Your task to perform on an android device: Add razer blade to the cart on target Image 0: 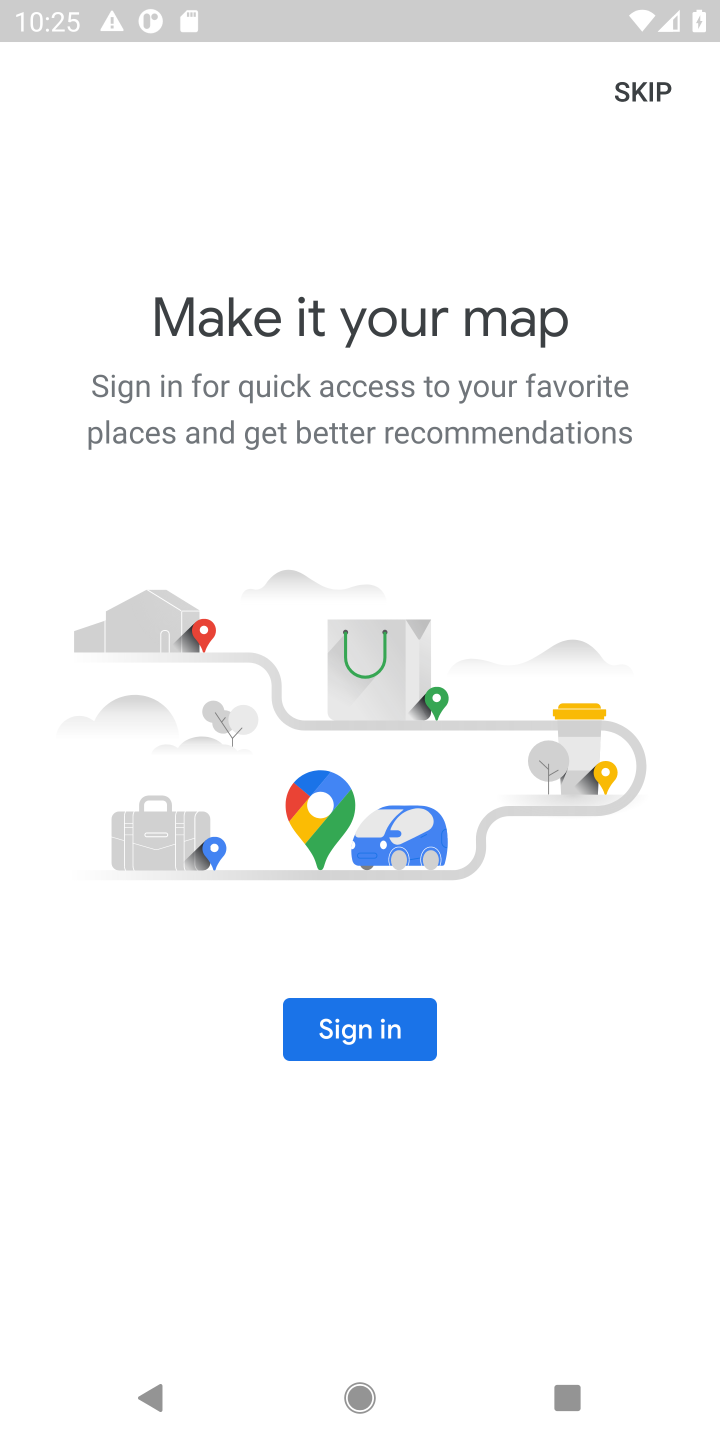
Step 0: press home button
Your task to perform on an android device: Add razer blade to the cart on target Image 1: 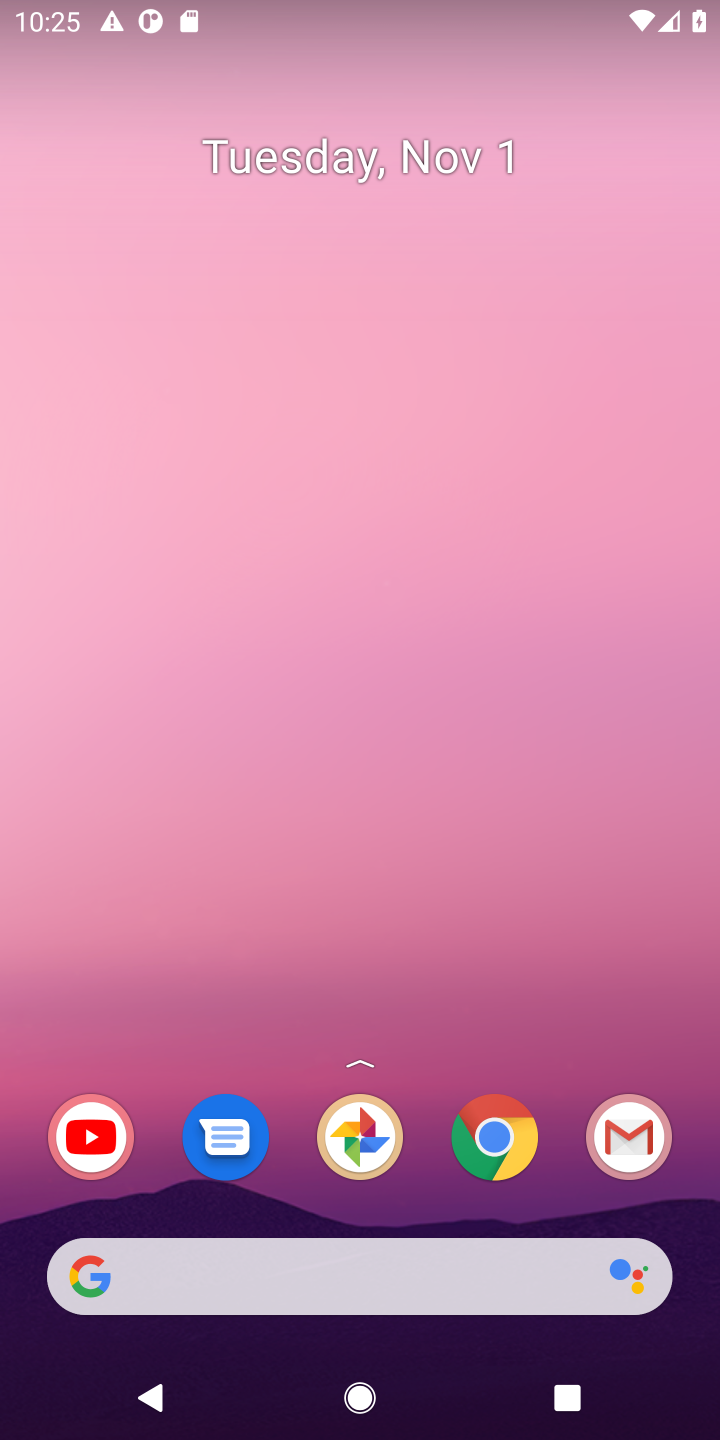
Step 1: drag from (356, 1037) to (281, 681)
Your task to perform on an android device: Add razer blade to the cart on target Image 2: 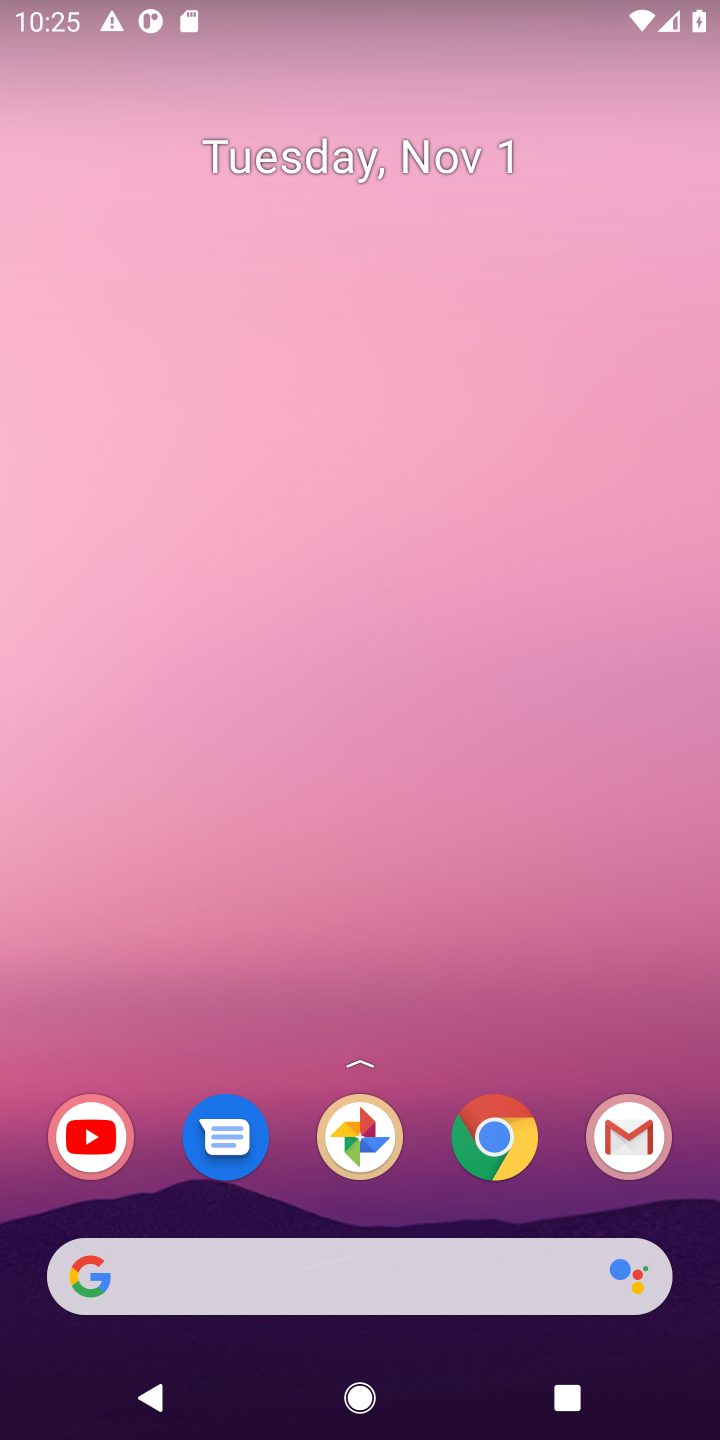
Step 2: click (328, 1283)
Your task to perform on an android device: Add razer blade to the cart on target Image 3: 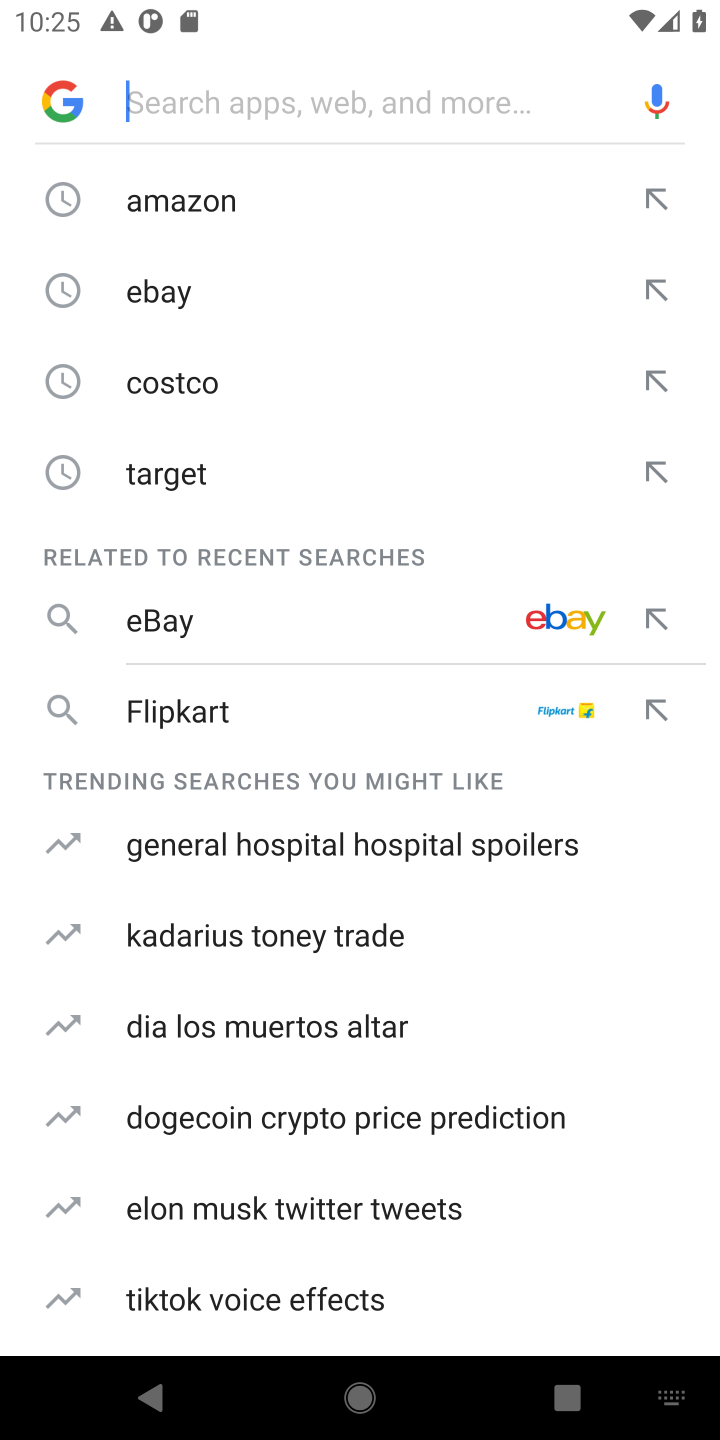
Step 3: click (328, 1283)
Your task to perform on an android device: Add razer blade to the cart on target Image 4: 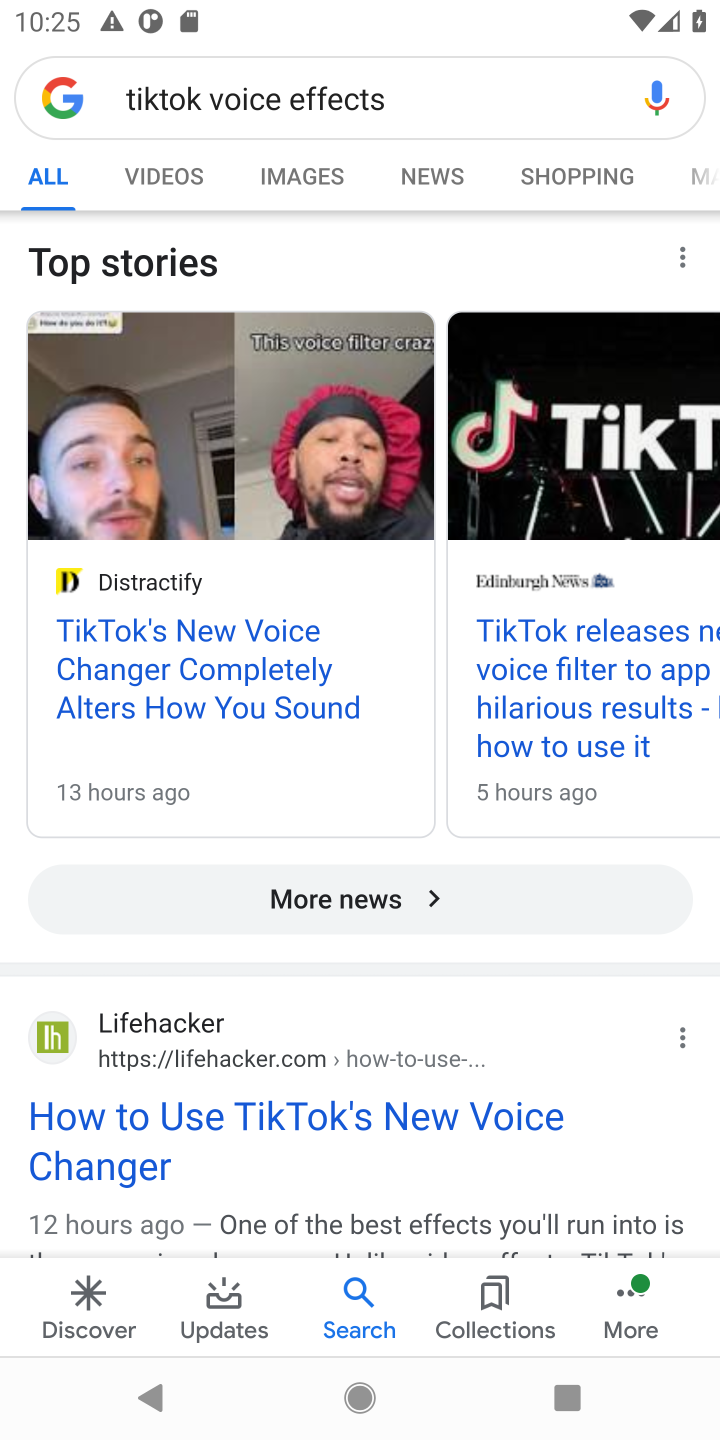
Step 4: press back button
Your task to perform on an android device: Add razer blade to the cart on target Image 5: 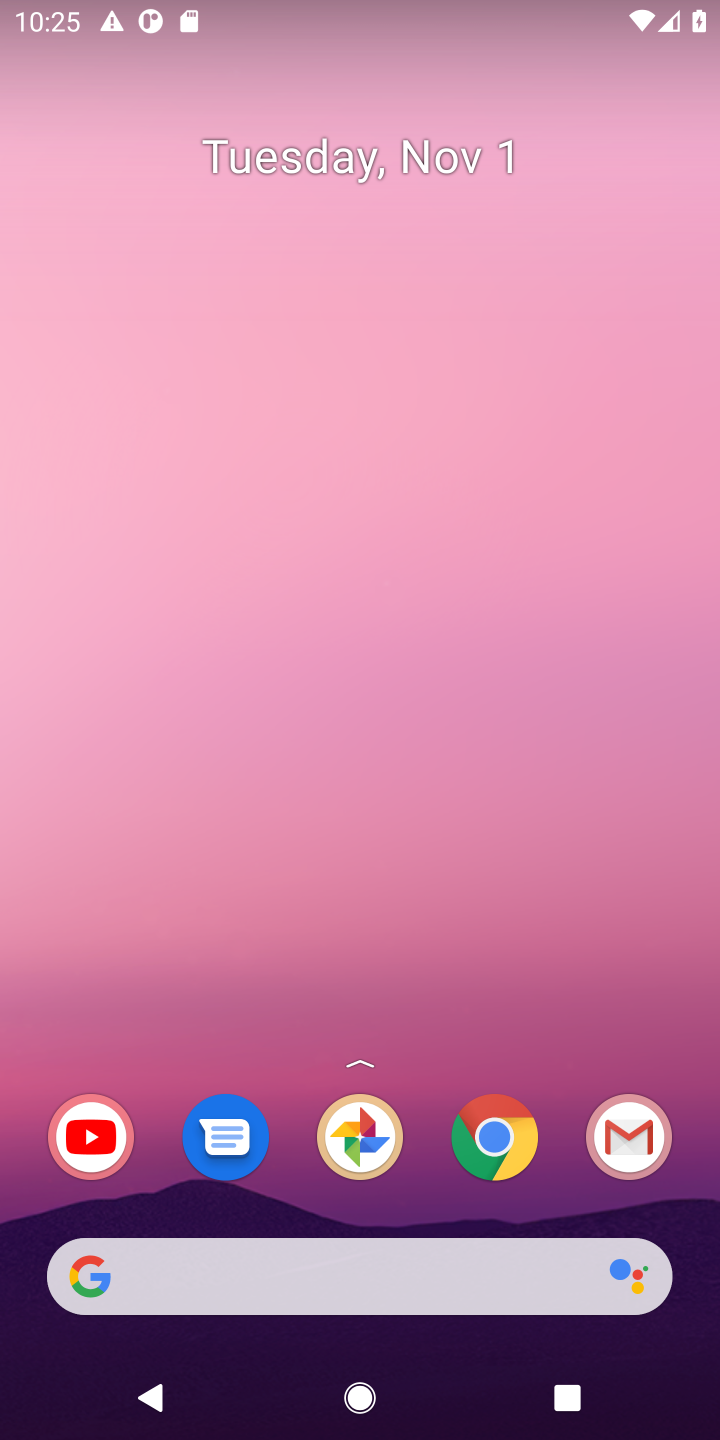
Step 5: click (381, 1266)
Your task to perform on an android device: Add razer blade to the cart on target Image 6: 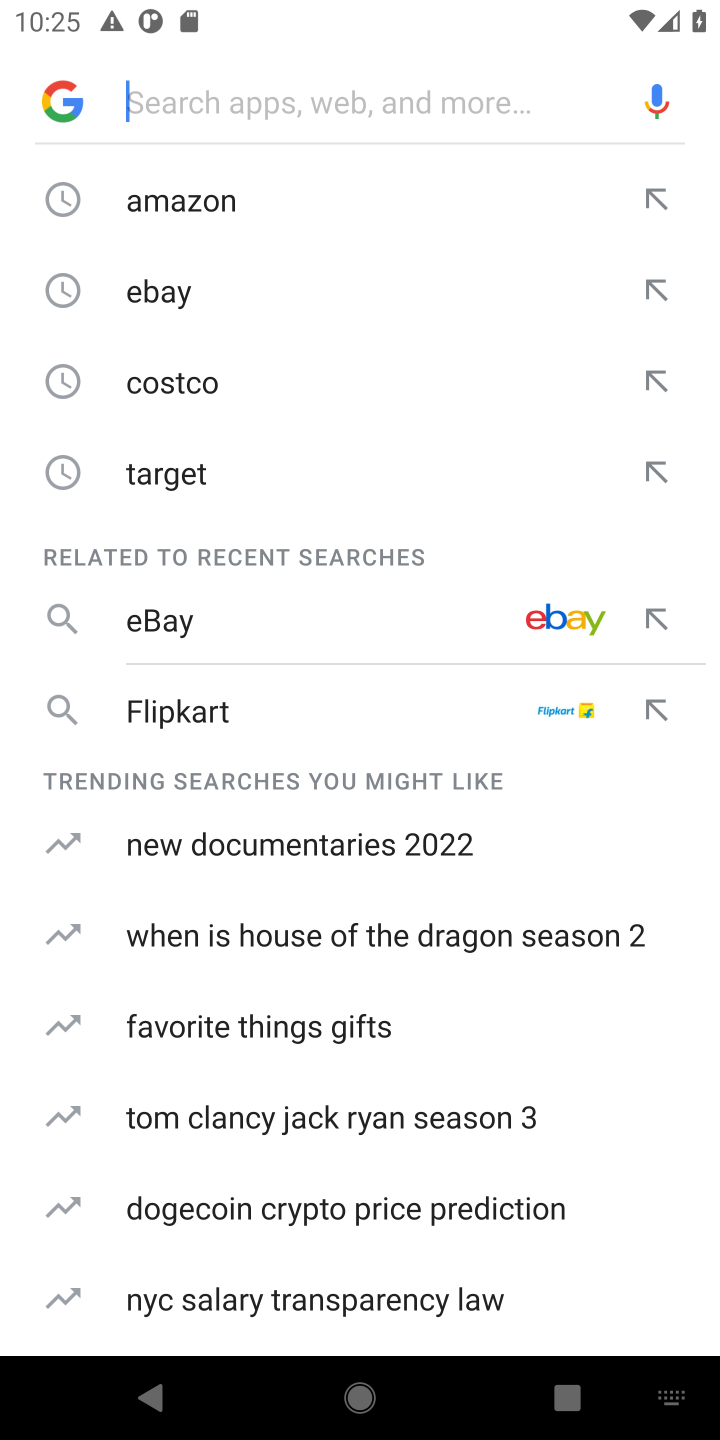
Step 6: click (158, 473)
Your task to perform on an android device: Add razer blade to the cart on target Image 7: 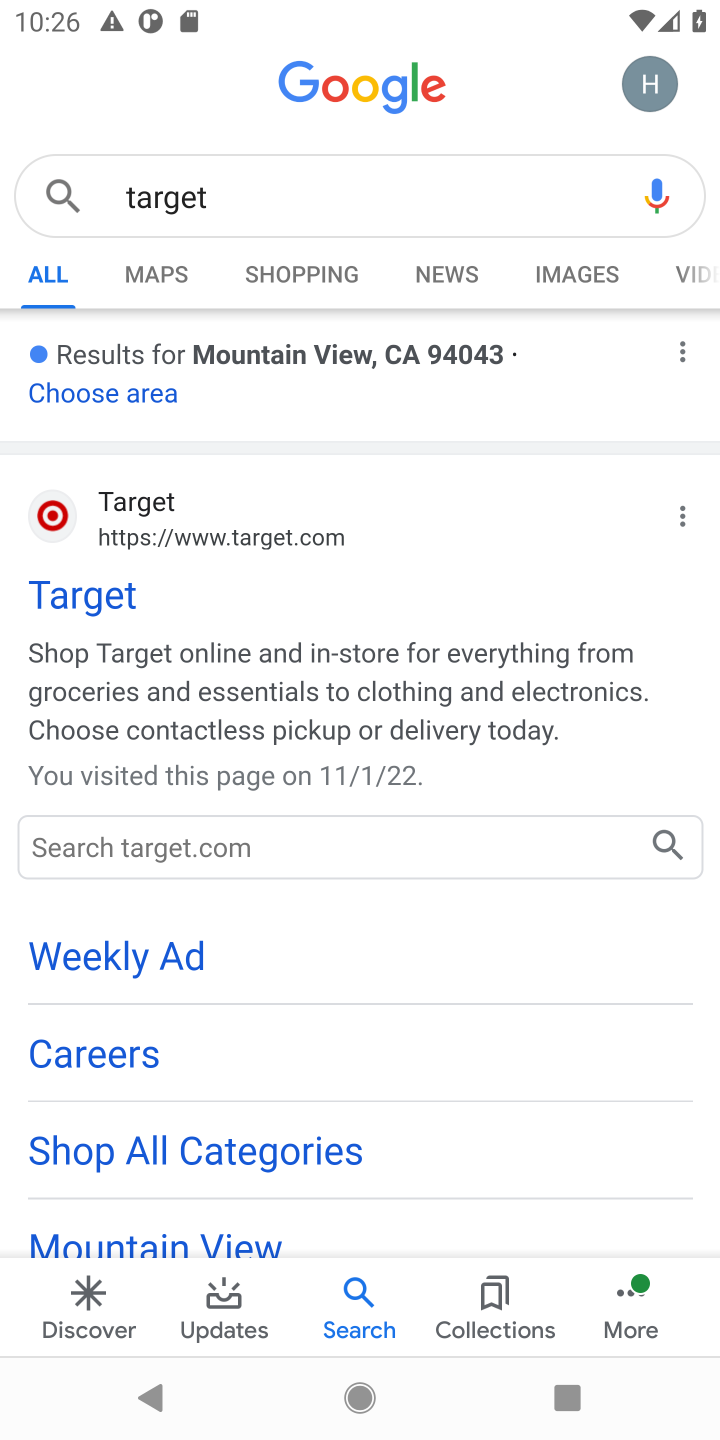
Step 7: click (93, 603)
Your task to perform on an android device: Add razer blade to the cart on target Image 8: 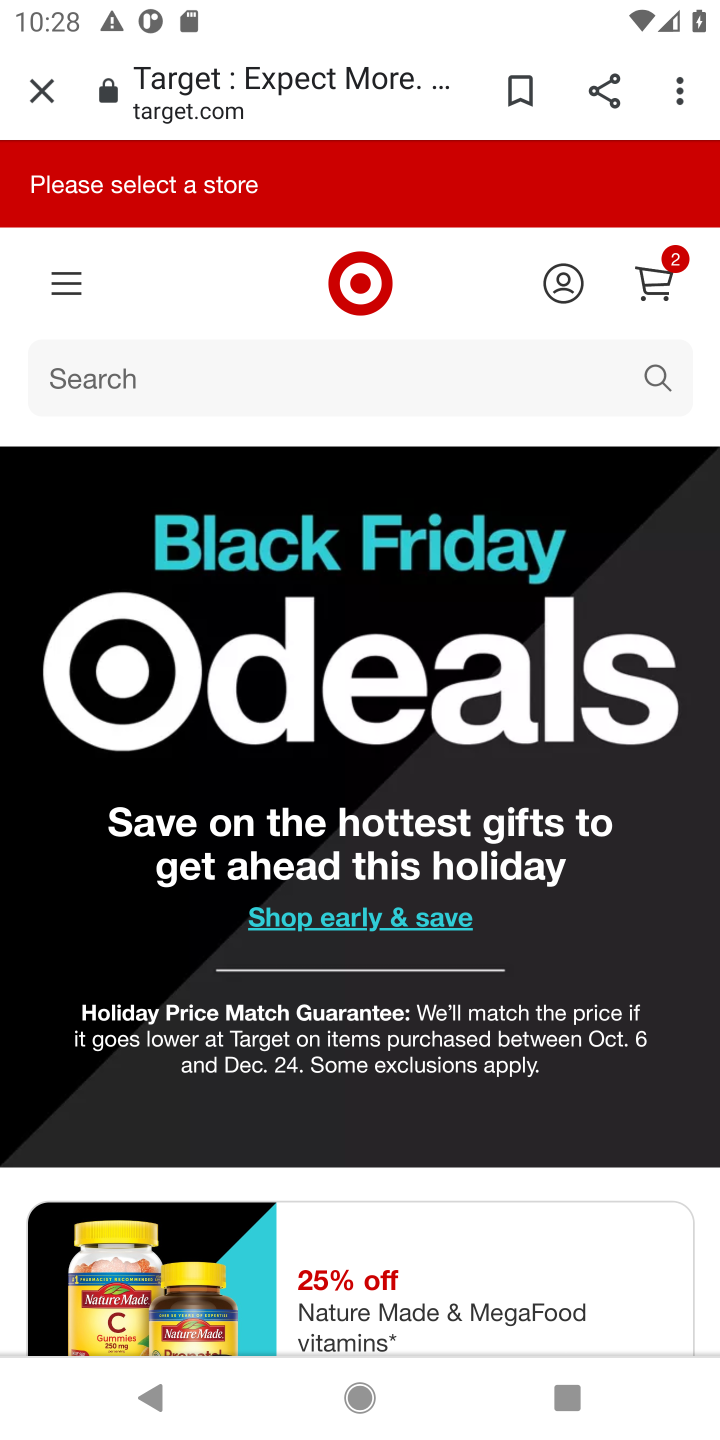
Step 8: click (256, 381)
Your task to perform on an android device: Add razer blade to the cart on target Image 9: 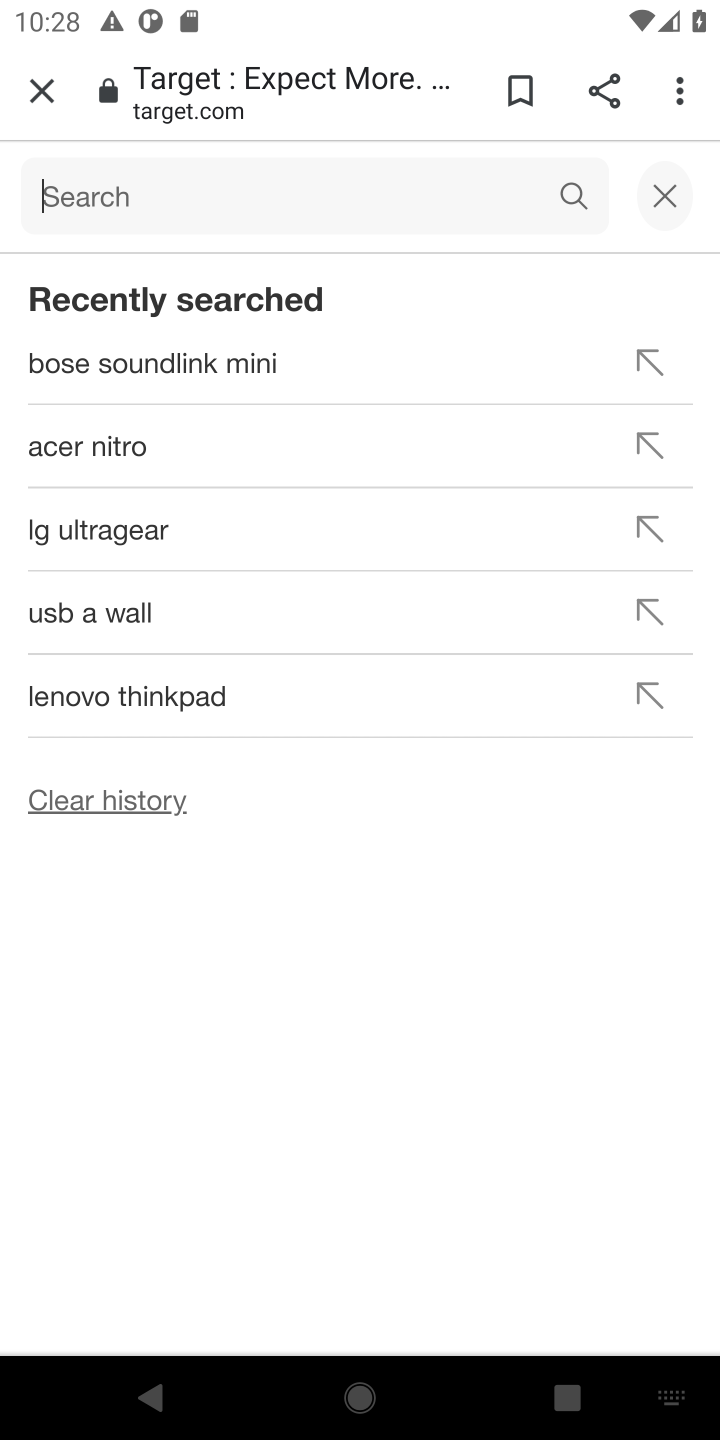
Step 9: type " razer blade"
Your task to perform on an android device: Add razer blade to the cart on target Image 10: 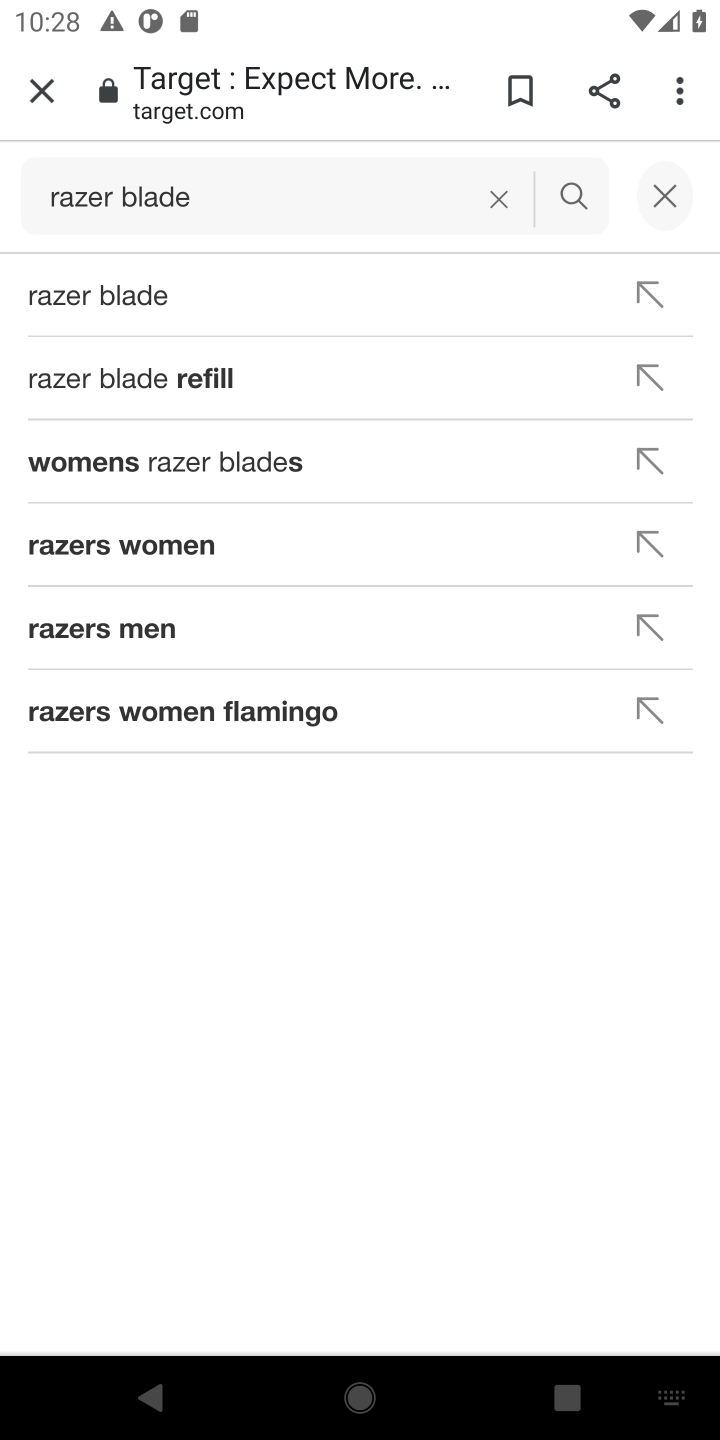
Step 10: click (131, 297)
Your task to perform on an android device: Add razer blade to the cart on target Image 11: 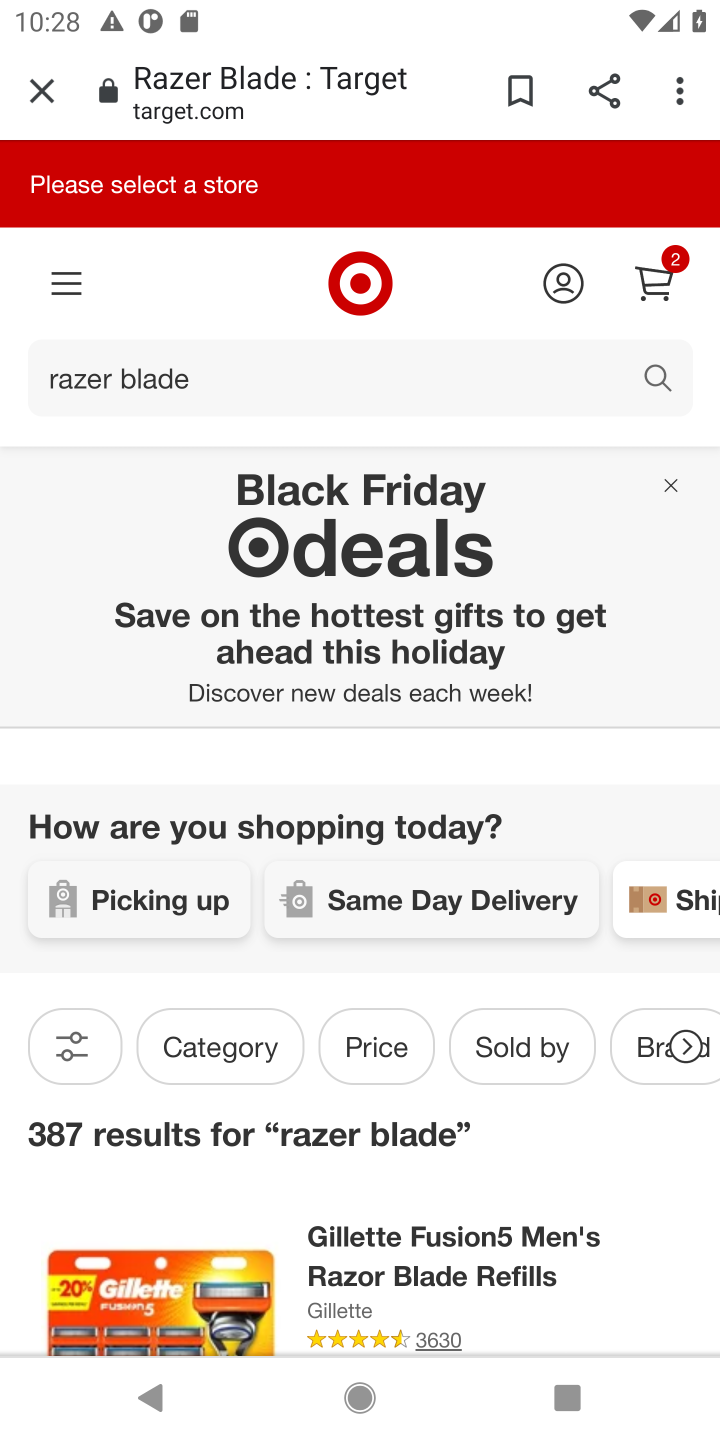
Step 11: drag from (440, 1160) to (434, 586)
Your task to perform on an android device: Add razer blade to the cart on target Image 12: 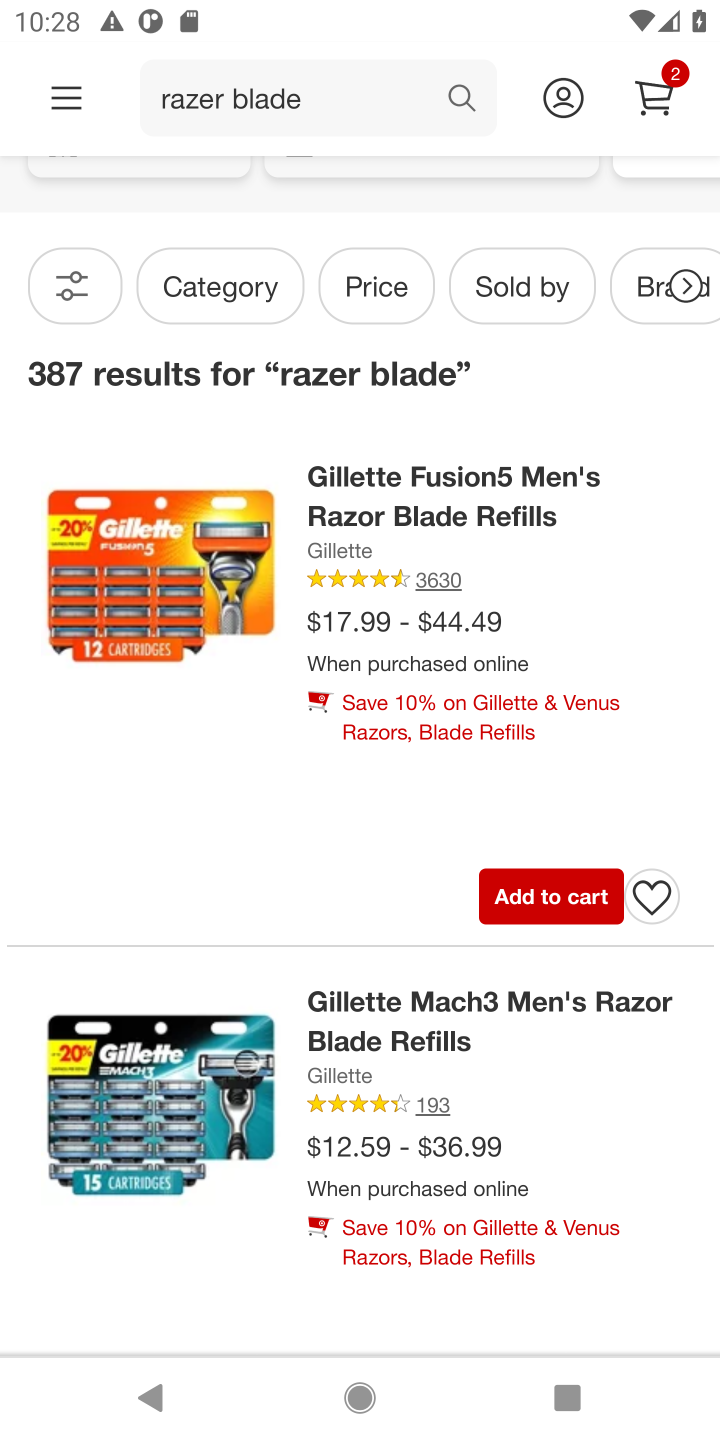
Step 12: click (535, 895)
Your task to perform on an android device: Add razer blade to the cart on target Image 13: 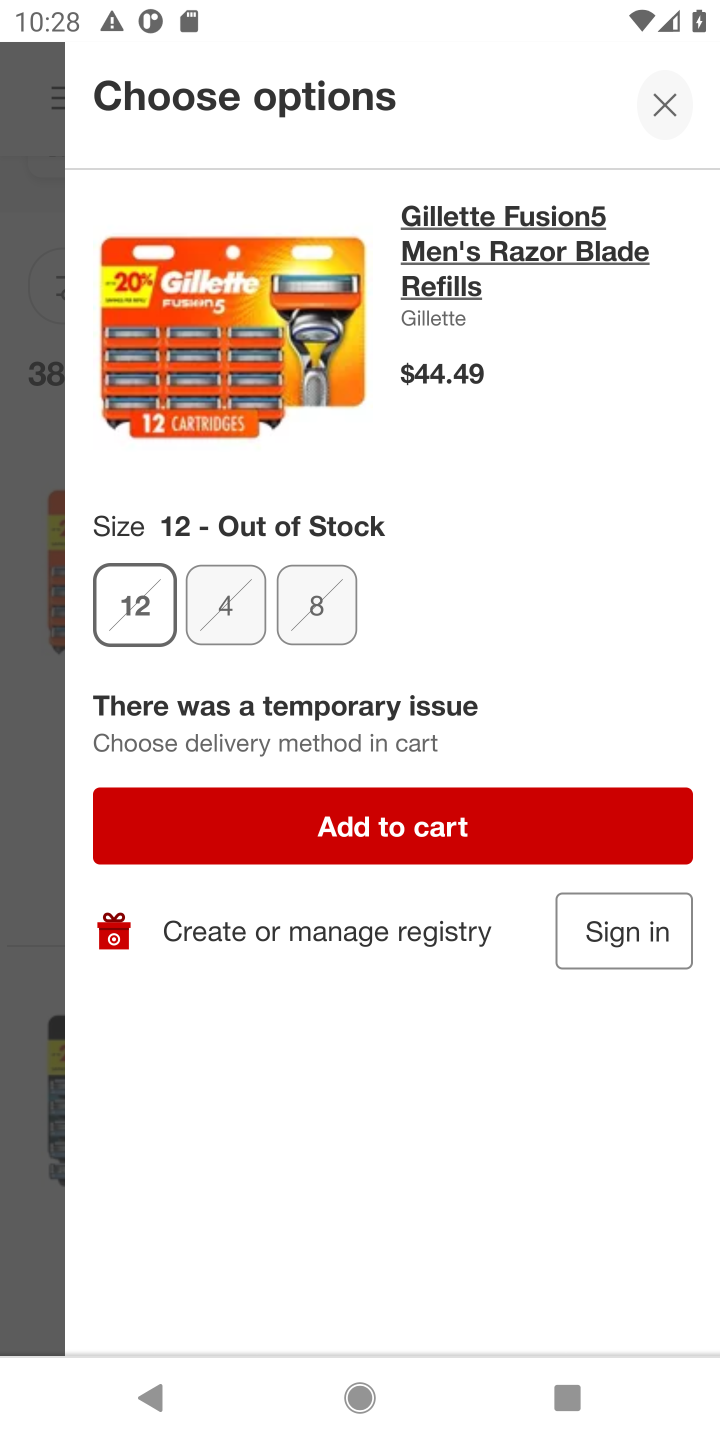
Step 13: click (362, 842)
Your task to perform on an android device: Add razer blade to the cart on target Image 14: 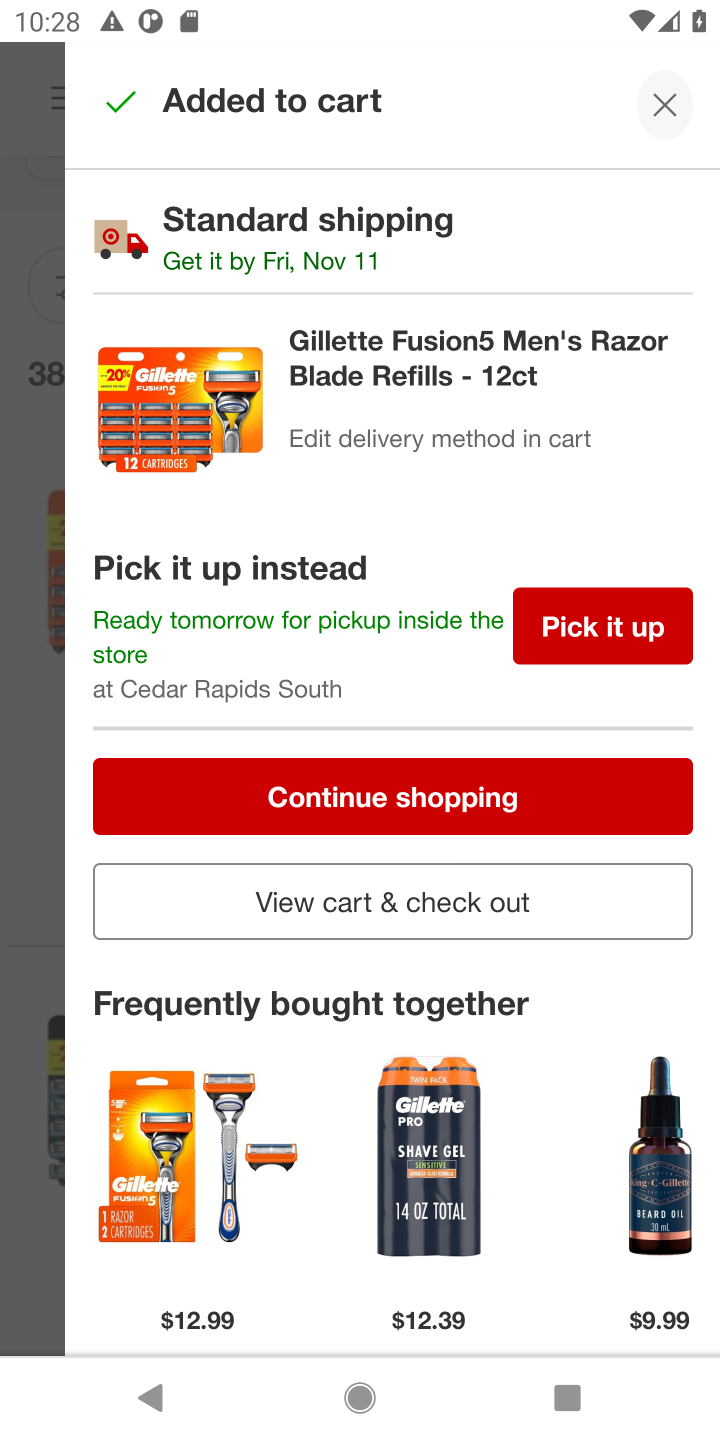
Step 14: click (662, 95)
Your task to perform on an android device: Add razer blade to the cart on target Image 15: 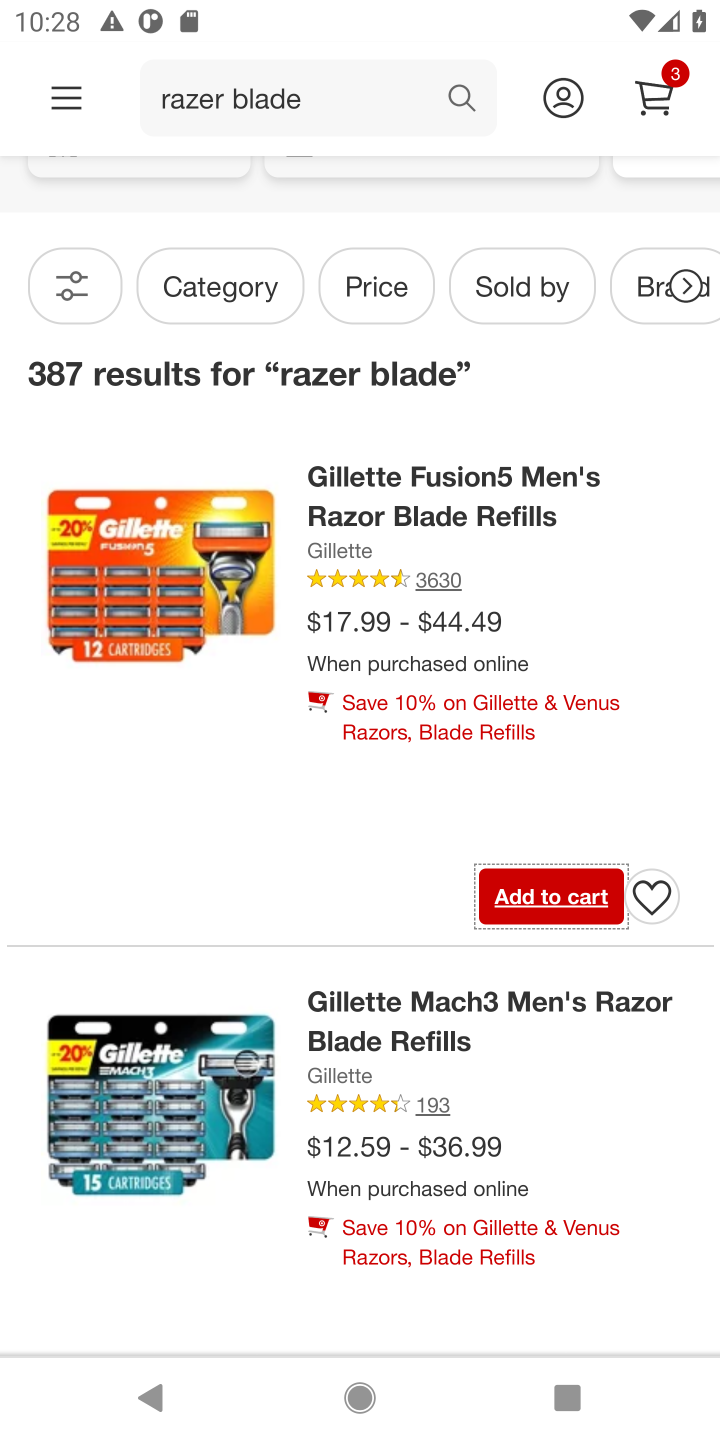
Step 15: task complete